Your task to perform on an android device: Search for dining sets on article.com Image 0: 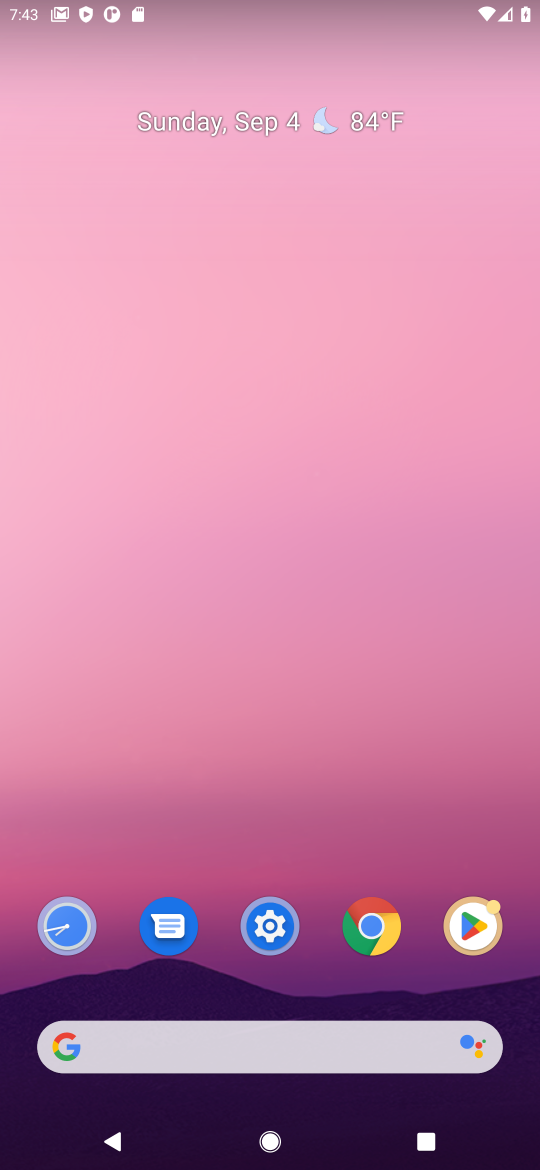
Step 0: click (261, 1052)
Your task to perform on an android device: Search for dining sets on article.com Image 1: 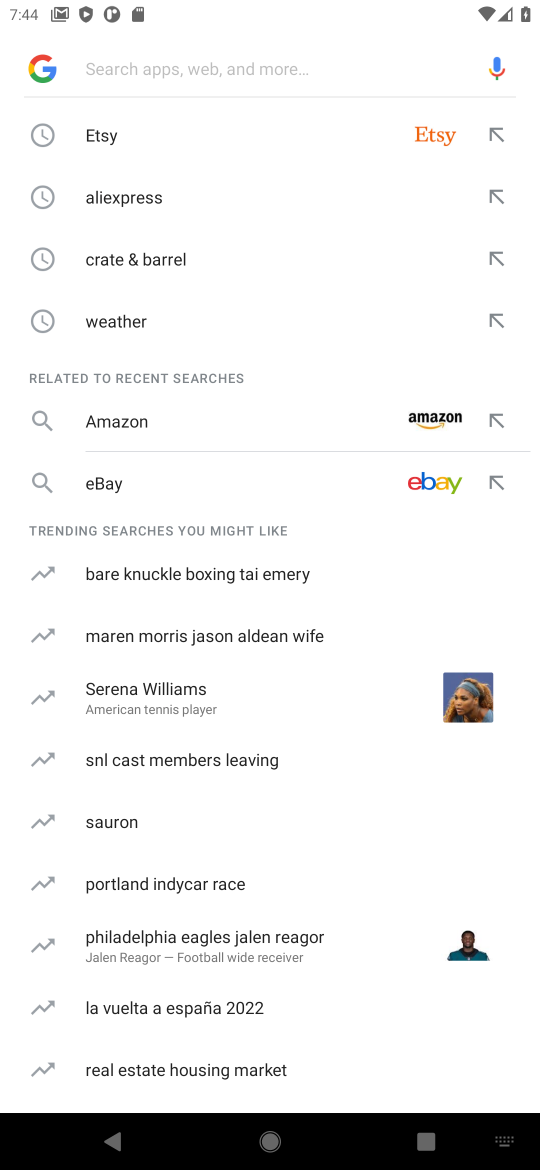
Step 1: type "artical.com"
Your task to perform on an android device: Search for dining sets on article.com Image 2: 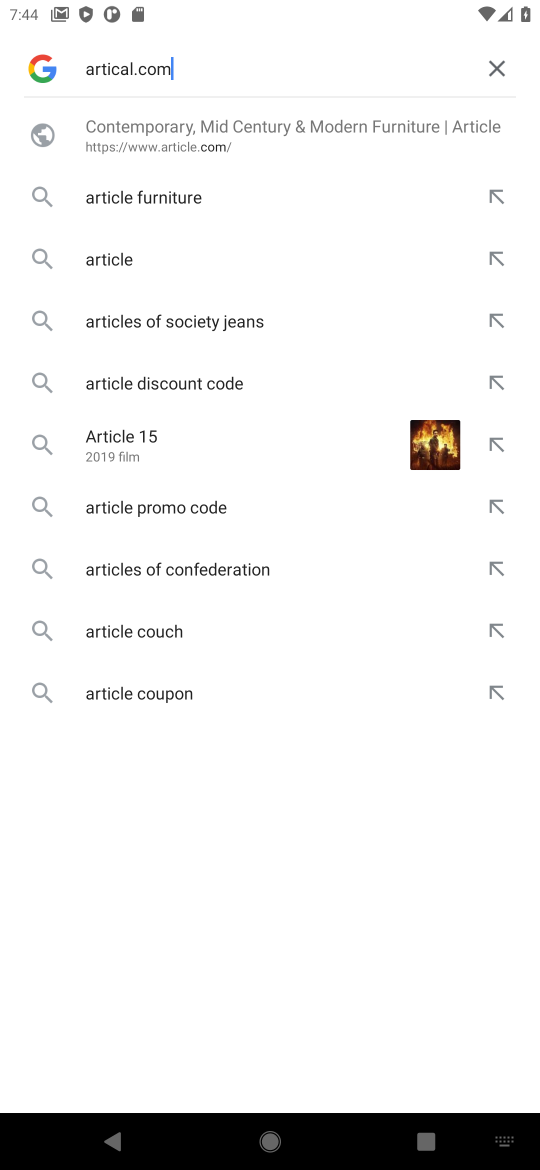
Step 2: click (151, 126)
Your task to perform on an android device: Search for dining sets on article.com Image 3: 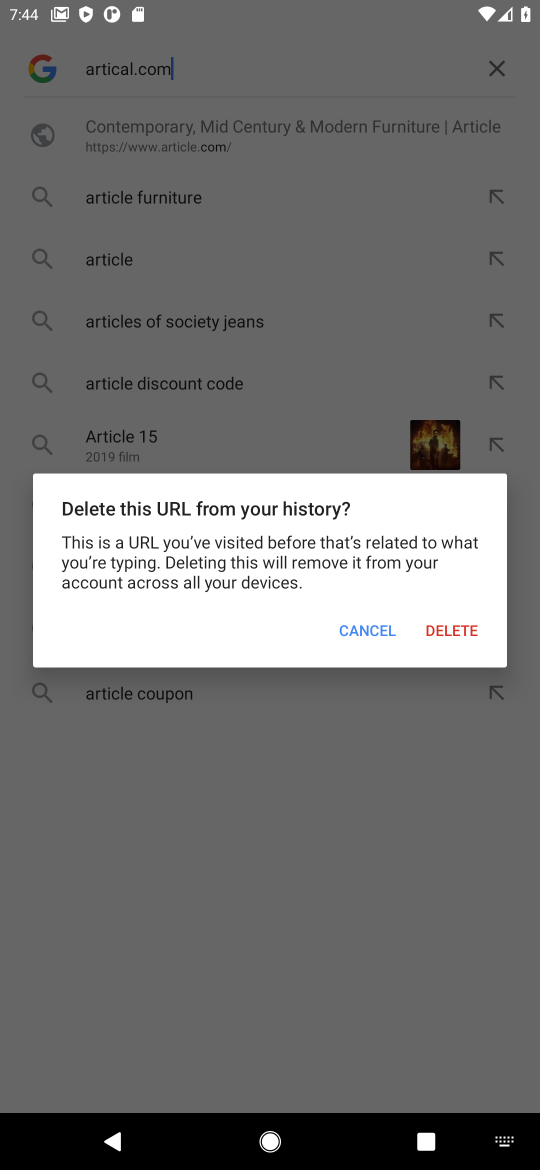
Step 3: click (350, 636)
Your task to perform on an android device: Search for dining sets on article.com Image 4: 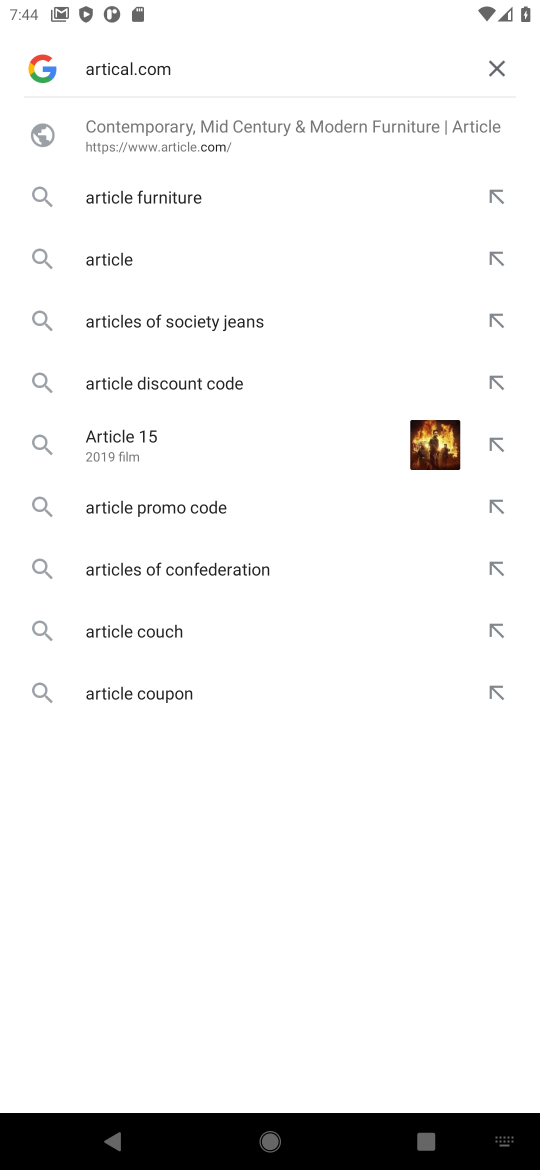
Step 4: click (260, 49)
Your task to perform on an android device: Search for dining sets on article.com Image 5: 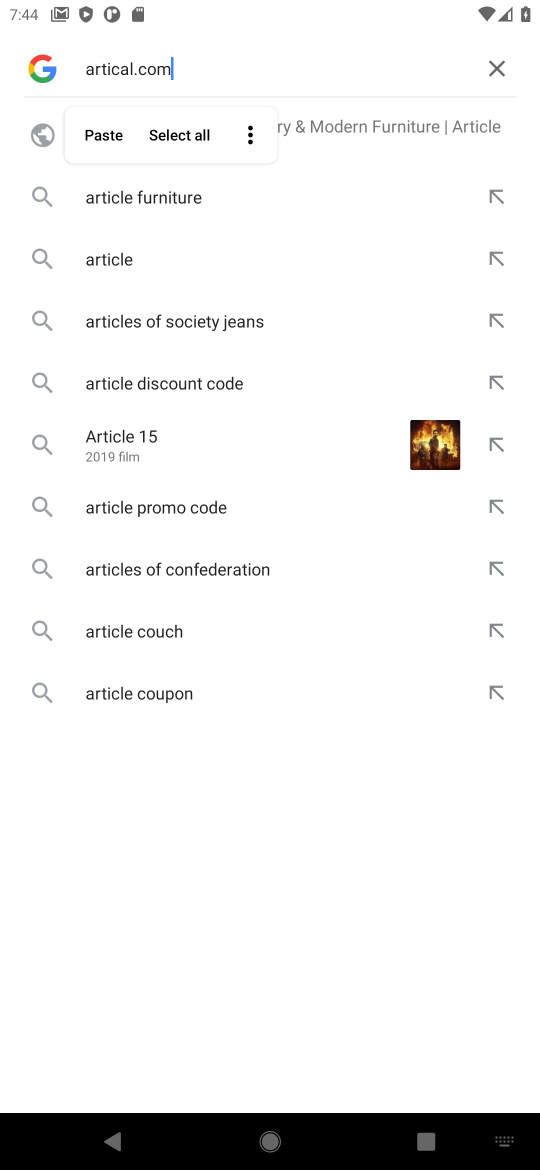
Step 5: click (239, 54)
Your task to perform on an android device: Search for dining sets on article.com Image 6: 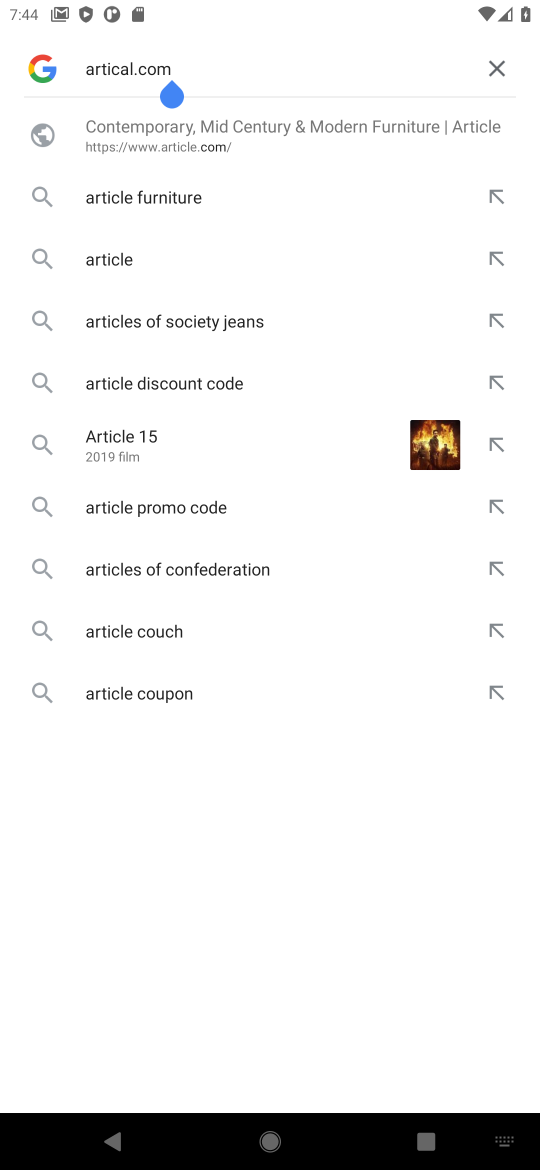
Step 6: click (103, 252)
Your task to perform on an android device: Search for dining sets on article.com Image 7: 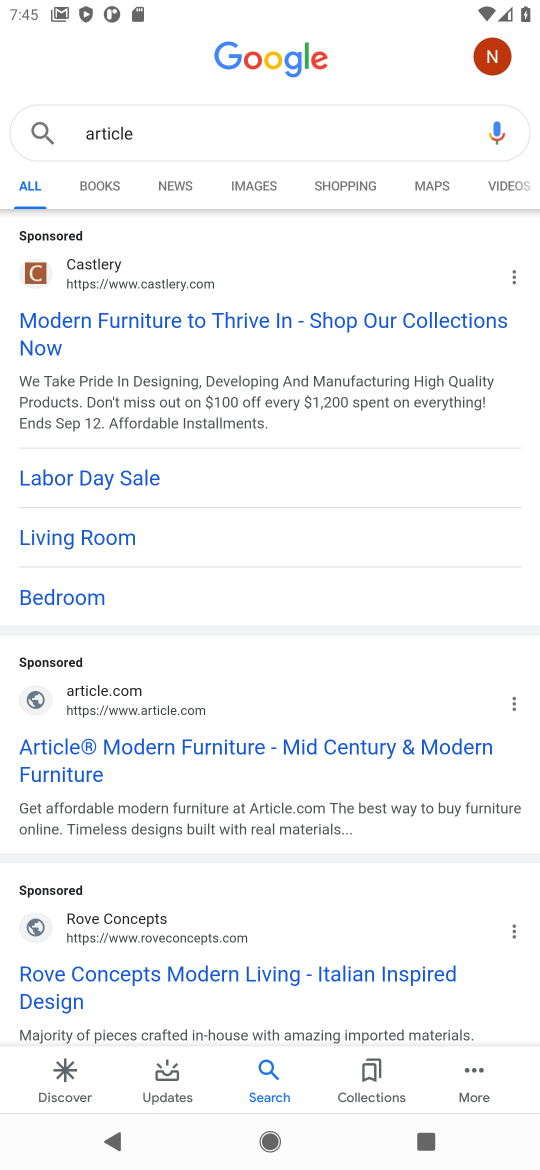
Step 7: click (193, 744)
Your task to perform on an android device: Search for dining sets on article.com Image 8: 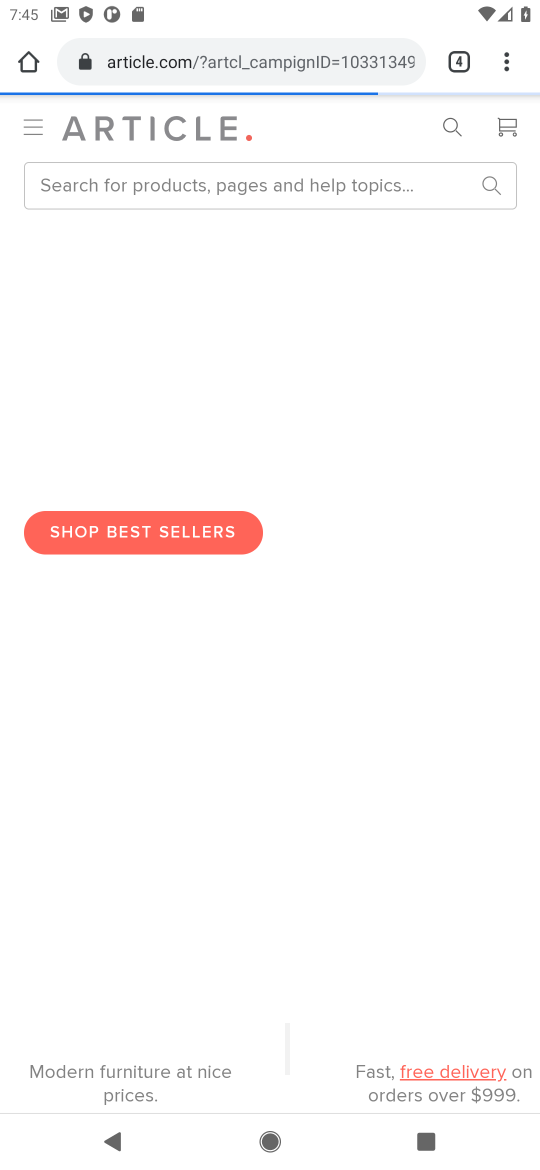
Step 8: click (230, 170)
Your task to perform on an android device: Search for dining sets on article.com Image 9: 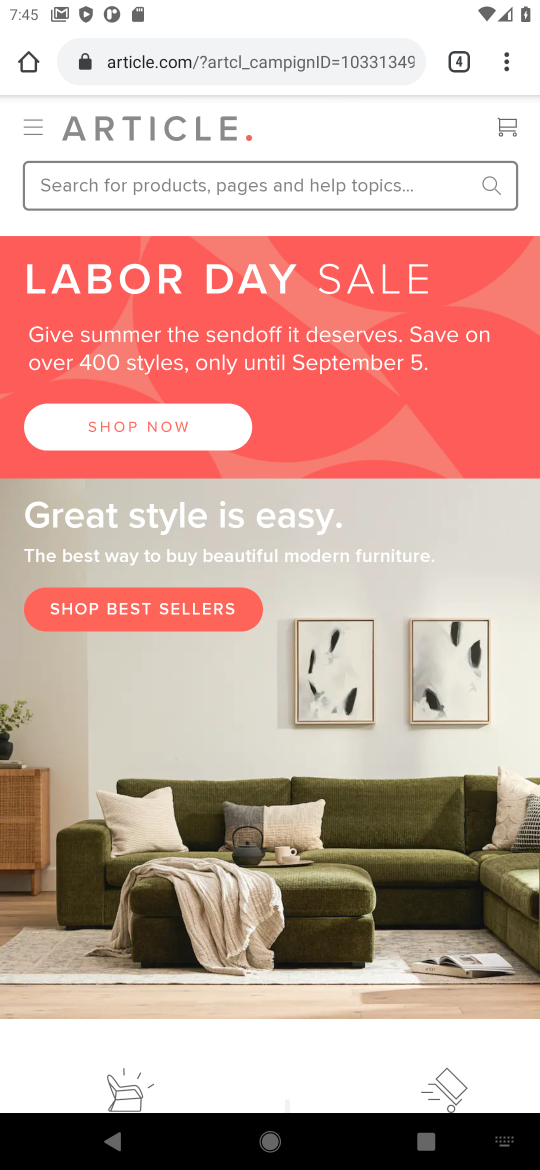
Step 9: type "dining sets"
Your task to perform on an android device: Search for dining sets on article.com Image 10: 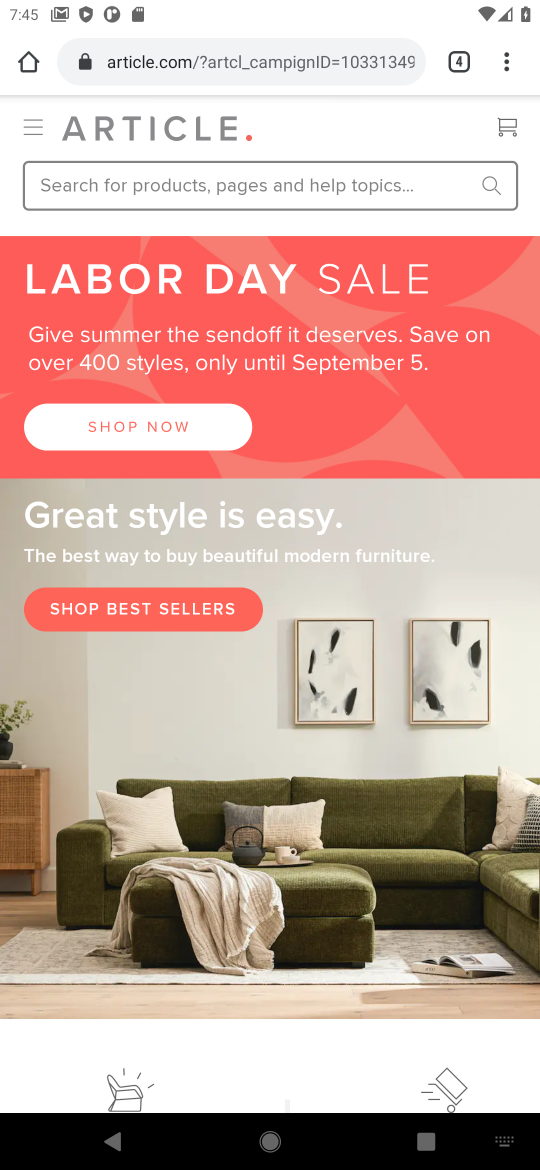
Step 10: click (332, 176)
Your task to perform on an android device: Search for dining sets on article.com Image 11: 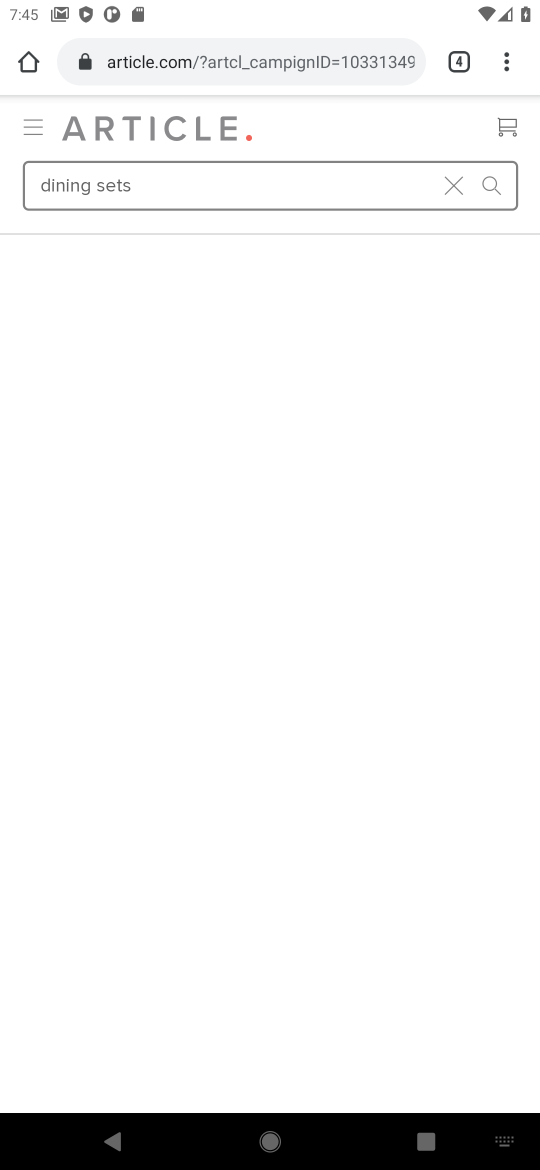
Step 11: click (488, 187)
Your task to perform on an android device: Search for dining sets on article.com Image 12: 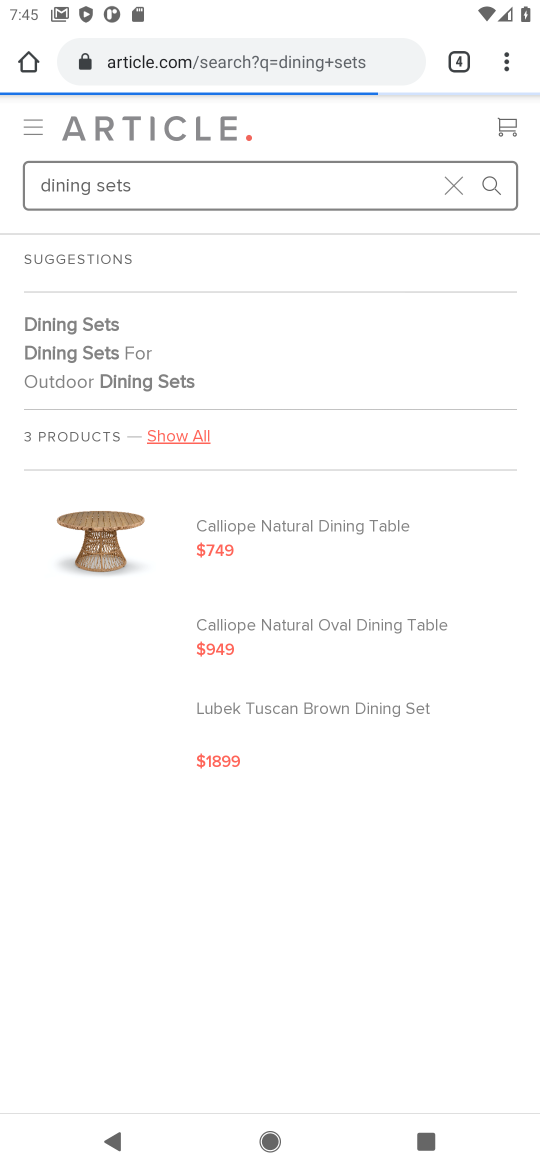
Step 12: click (334, 163)
Your task to perform on an android device: Search for dining sets on article.com Image 13: 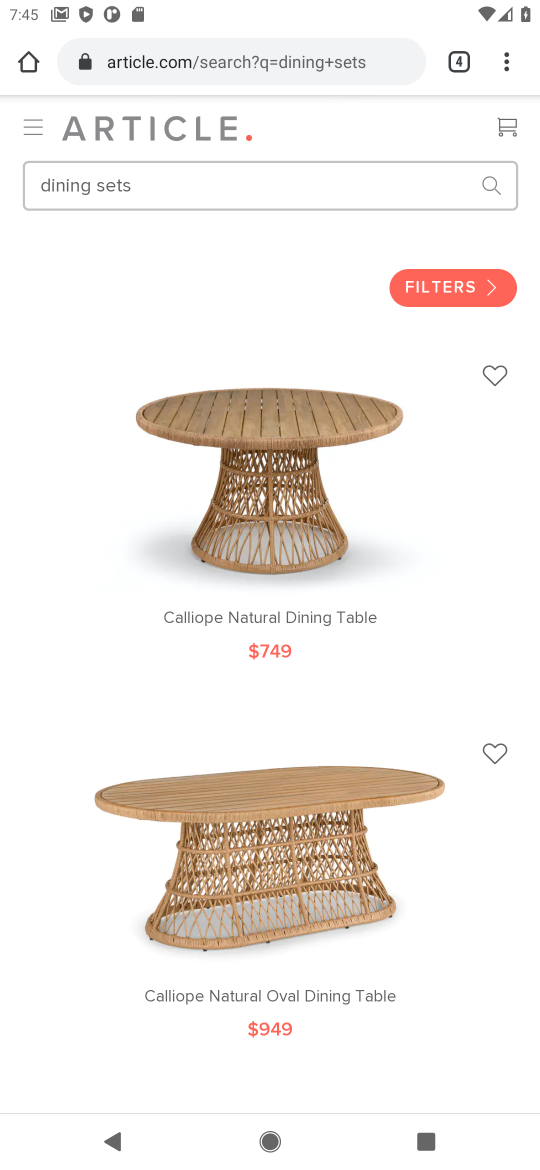
Step 13: task complete